Your task to perform on an android device: delete location history Image 0: 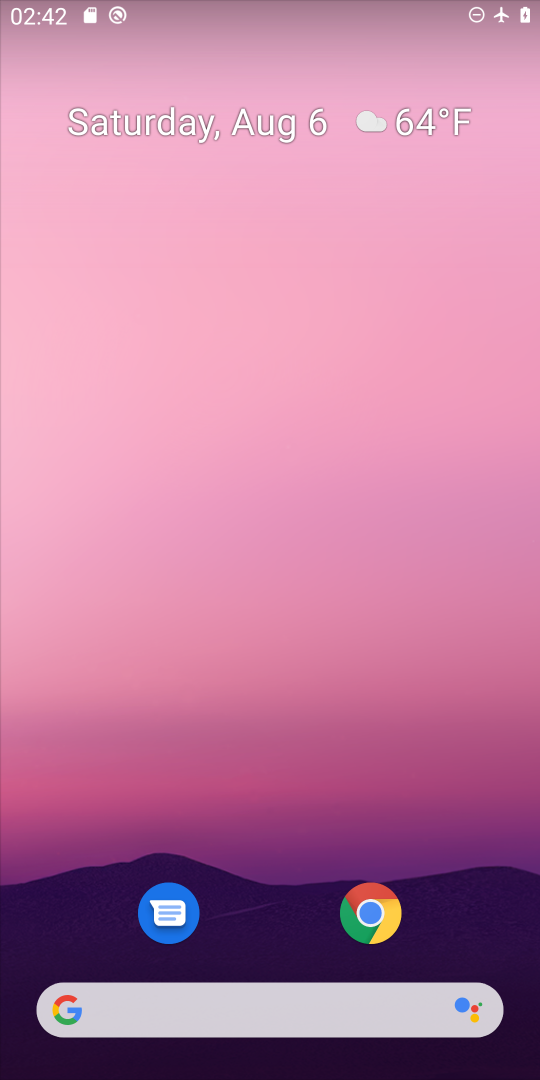
Step 0: drag from (279, 839) to (312, 295)
Your task to perform on an android device: delete location history Image 1: 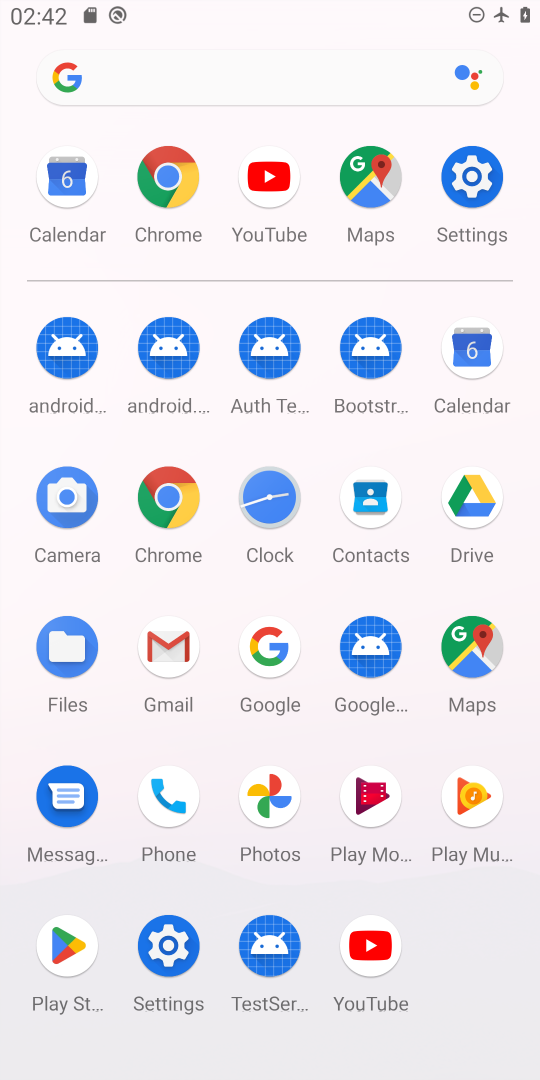
Step 1: click (482, 649)
Your task to perform on an android device: delete location history Image 2: 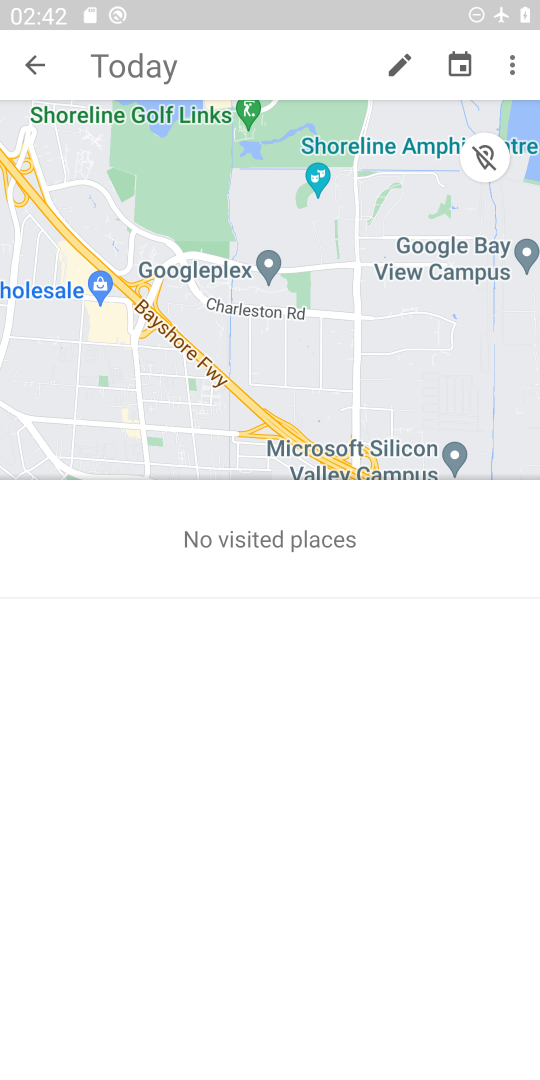
Step 2: click (509, 69)
Your task to perform on an android device: delete location history Image 3: 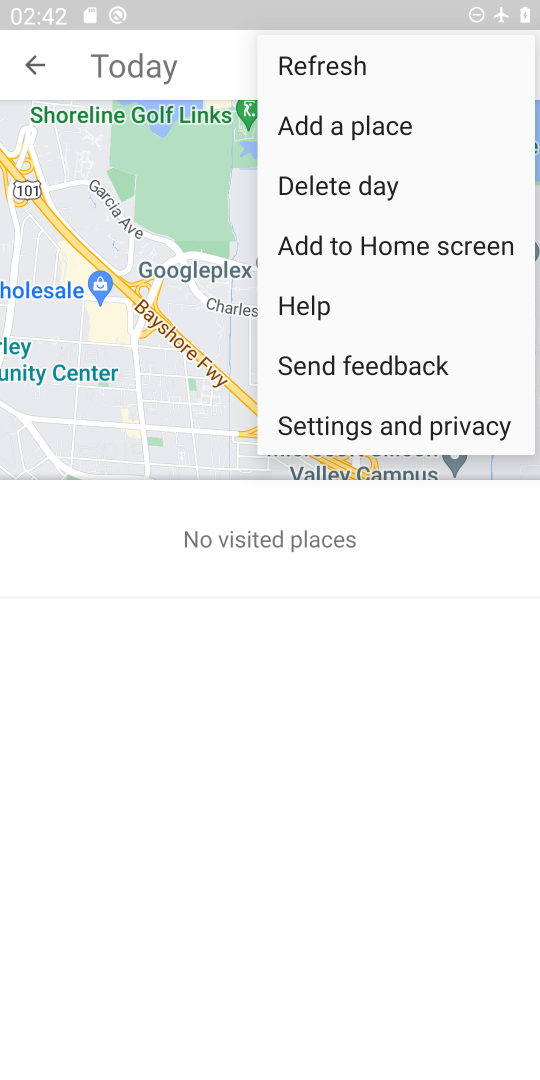
Step 3: click (391, 424)
Your task to perform on an android device: delete location history Image 4: 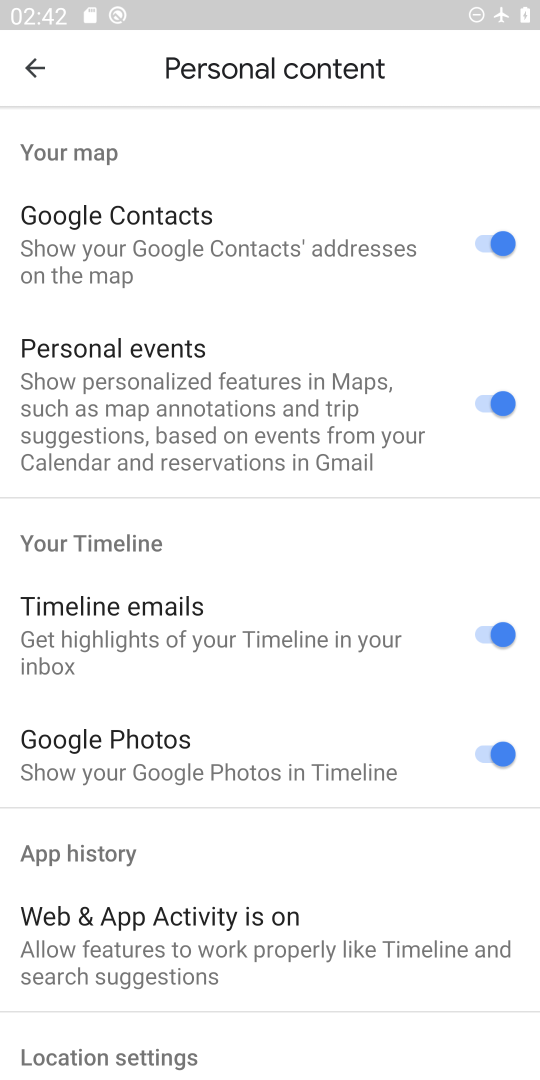
Step 4: drag from (367, 823) to (348, 655)
Your task to perform on an android device: delete location history Image 5: 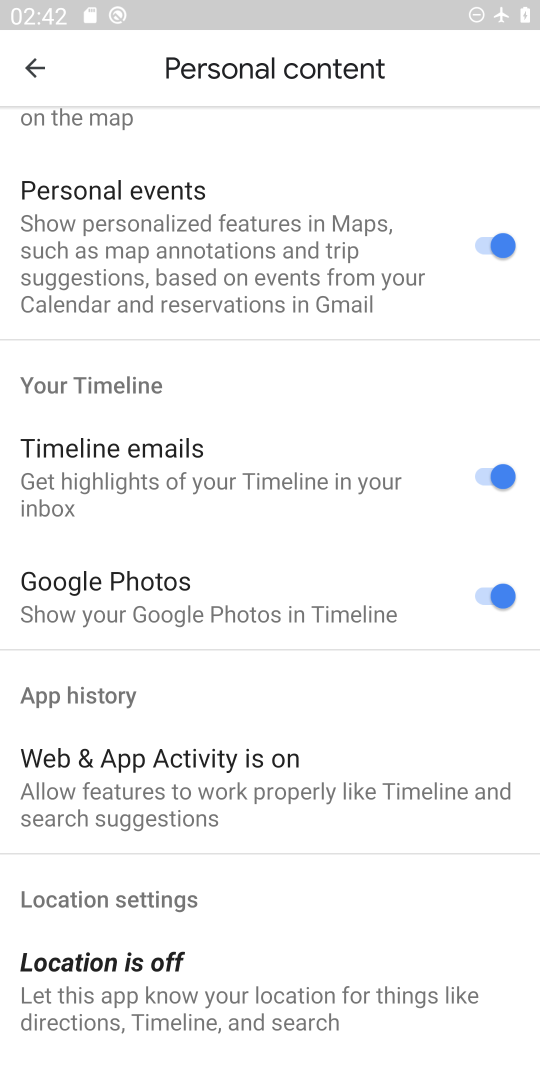
Step 5: drag from (375, 886) to (371, 638)
Your task to perform on an android device: delete location history Image 6: 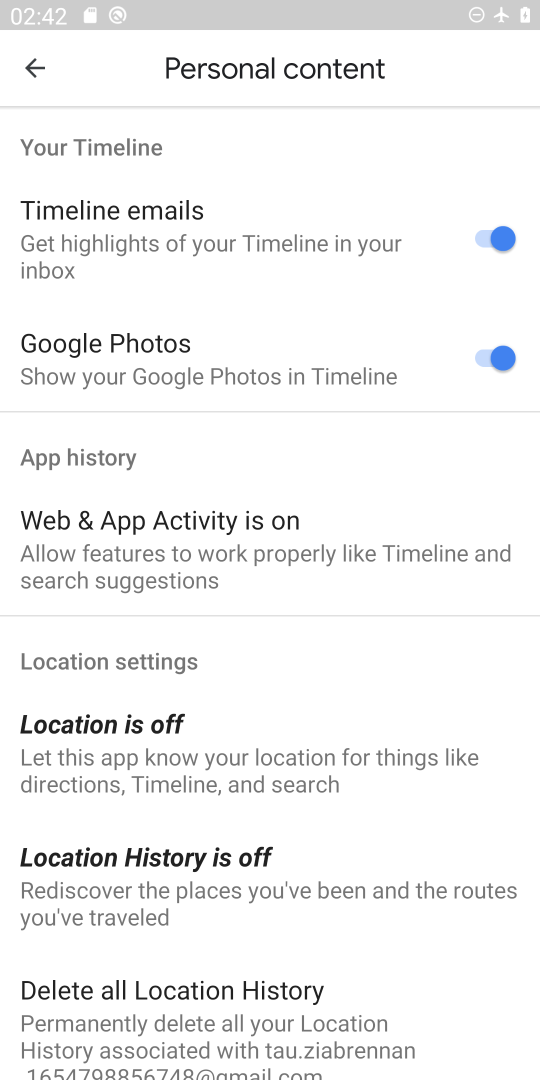
Step 6: drag from (304, 910) to (286, 665)
Your task to perform on an android device: delete location history Image 7: 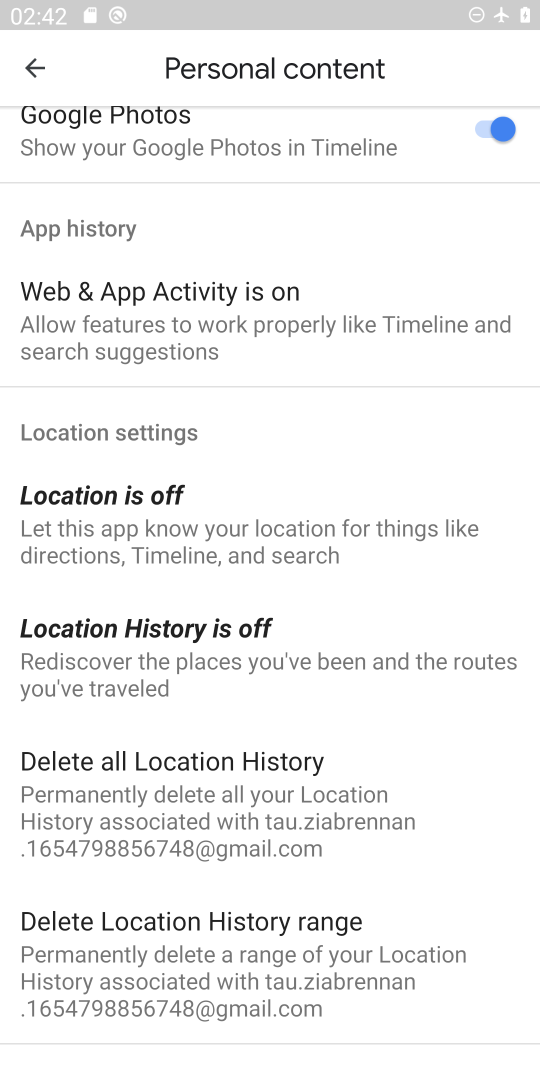
Step 7: click (324, 798)
Your task to perform on an android device: delete location history Image 8: 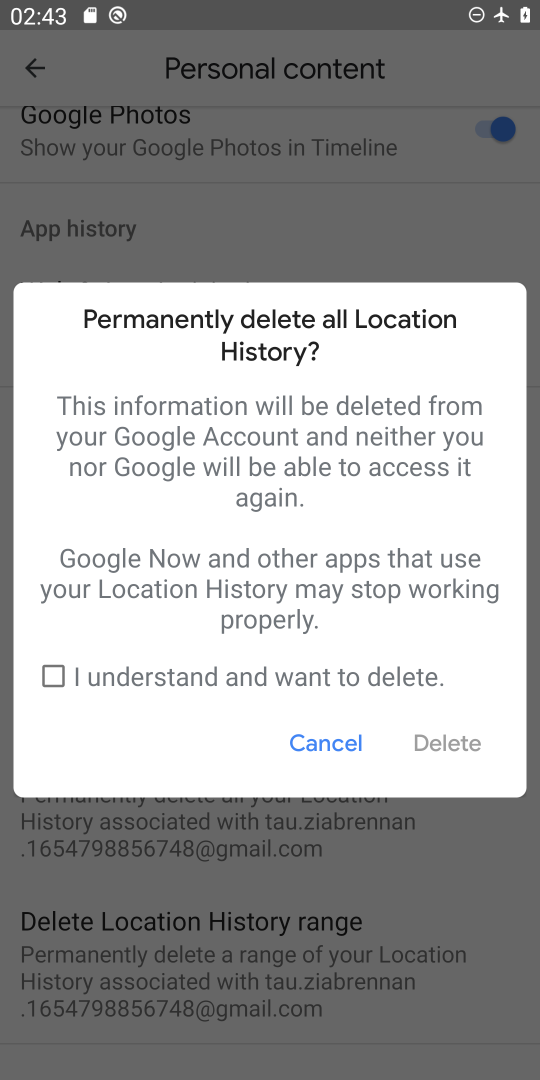
Step 8: click (52, 676)
Your task to perform on an android device: delete location history Image 9: 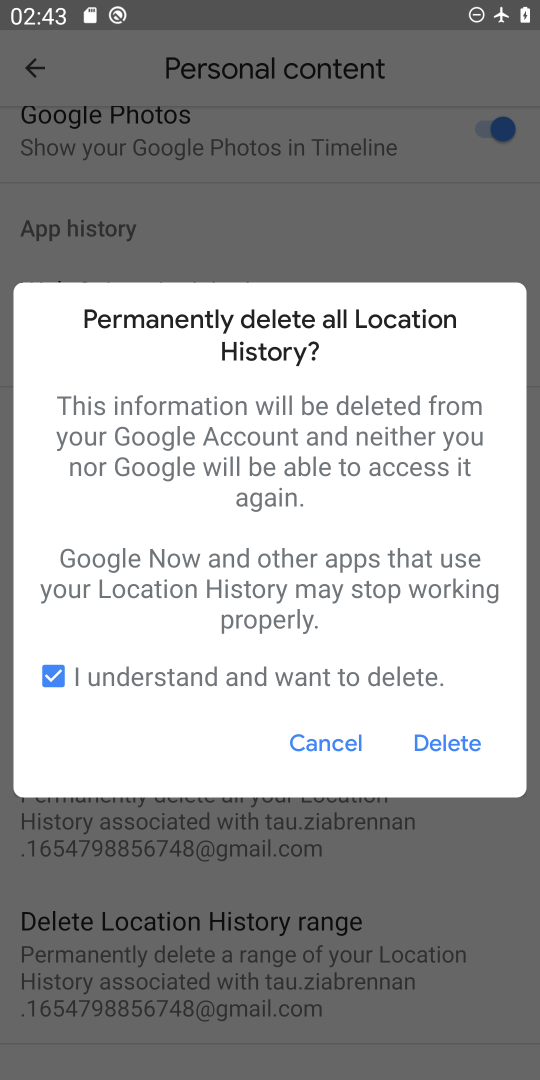
Step 9: click (448, 739)
Your task to perform on an android device: delete location history Image 10: 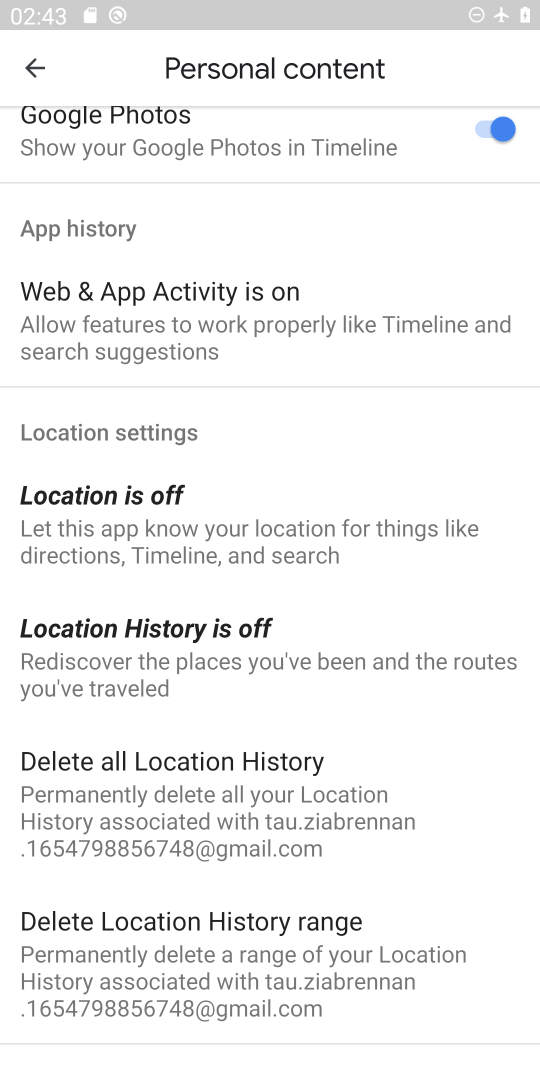
Step 10: task complete